Your task to perform on an android device: Search for pizza restaurants on Maps Image 0: 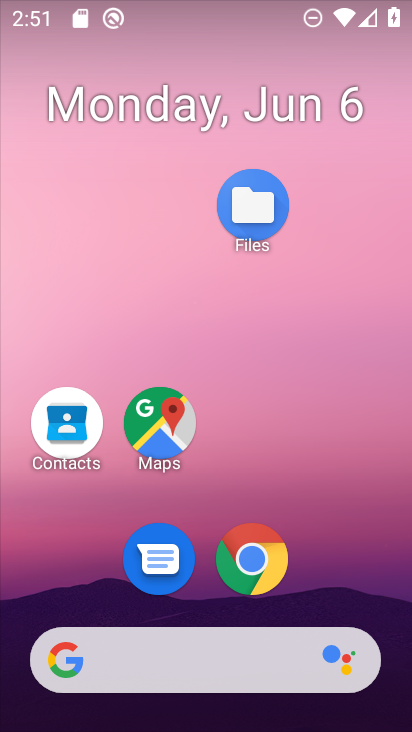
Step 0: drag from (300, 659) to (358, 129)
Your task to perform on an android device: Search for pizza restaurants on Maps Image 1: 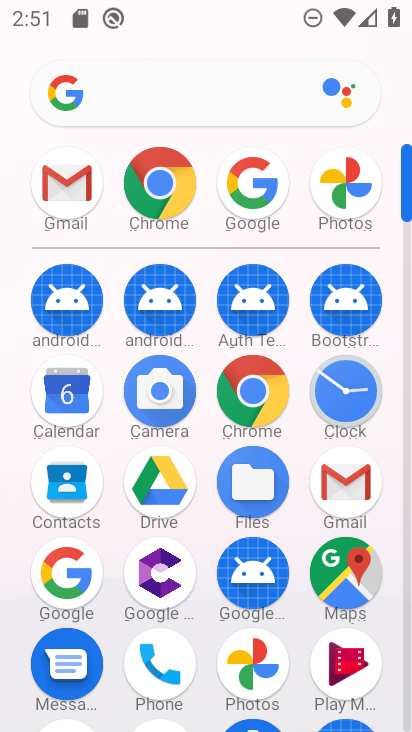
Step 1: click (361, 593)
Your task to perform on an android device: Search for pizza restaurants on Maps Image 2: 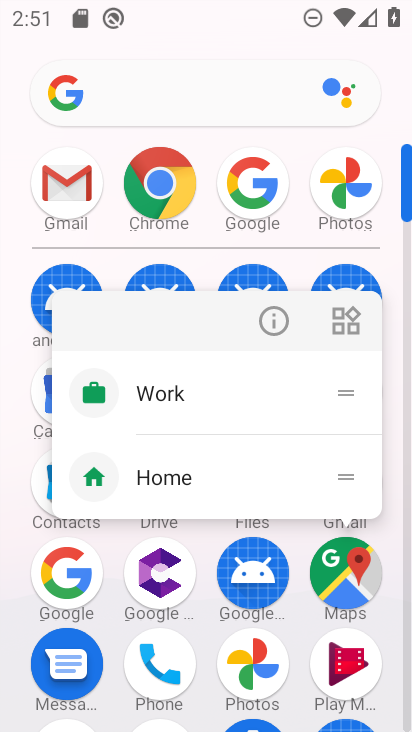
Step 2: click (339, 595)
Your task to perform on an android device: Search for pizza restaurants on Maps Image 3: 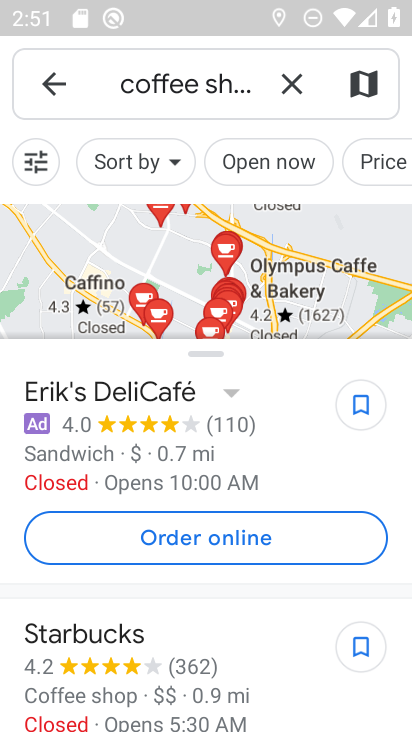
Step 3: click (284, 80)
Your task to perform on an android device: Search for pizza restaurants on Maps Image 4: 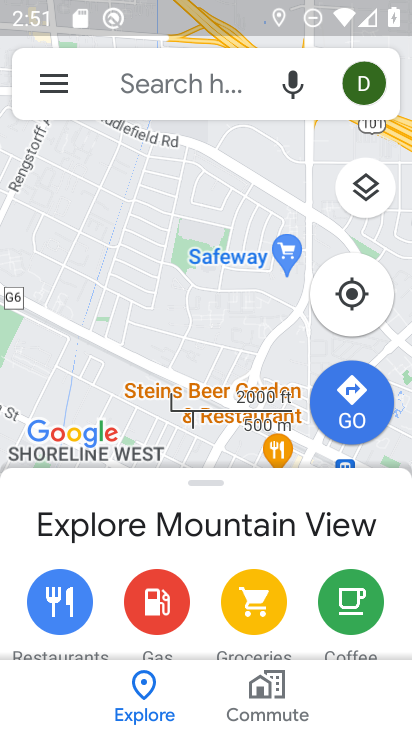
Step 4: click (205, 81)
Your task to perform on an android device: Search for pizza restaurants on Maps Image 5: 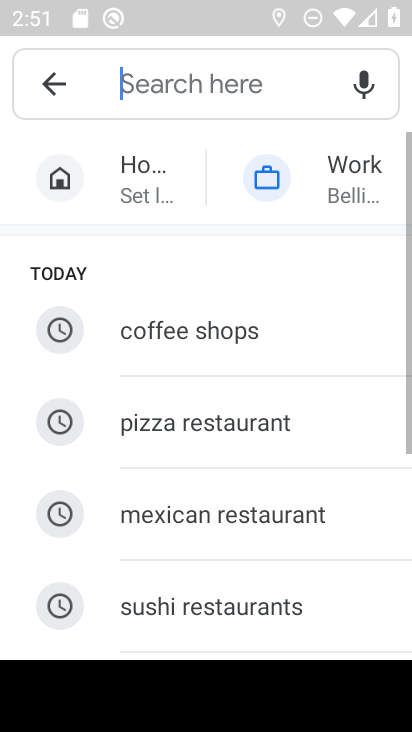
Step 5: click (179, 427)
Your task to perform on an android device: Search for pizza restaurants on Maps Image 6: 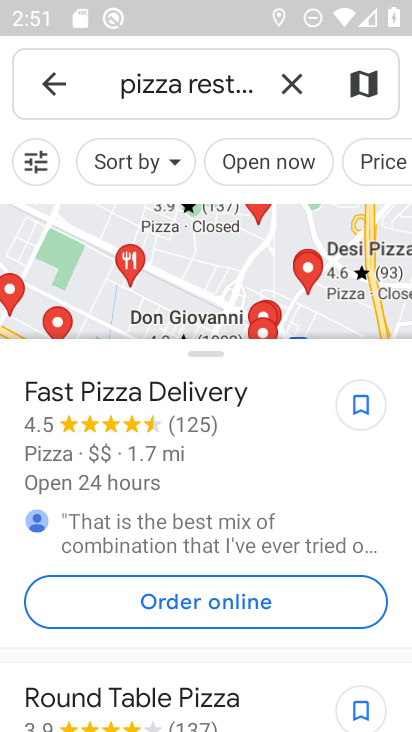
Step 6: task complete